Your task to perform on an android device: Open Google Chrome and click the shortcut for Amazon.com Image 0: 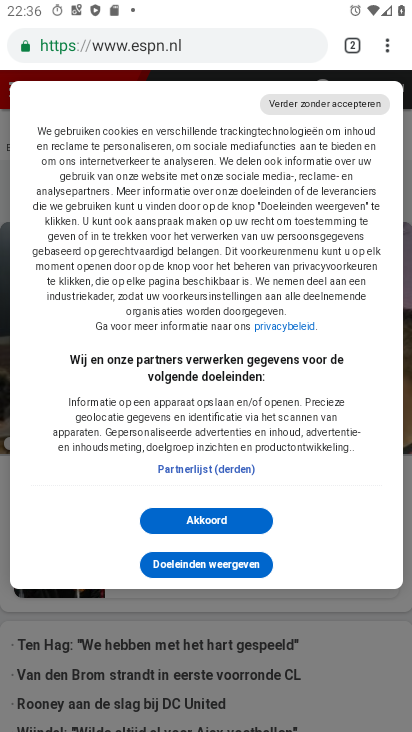
Step 0: click (346, 49)
Your task to perform on an android device: Open Google Chrome and click the shortcut for Amazon.com Image 1: 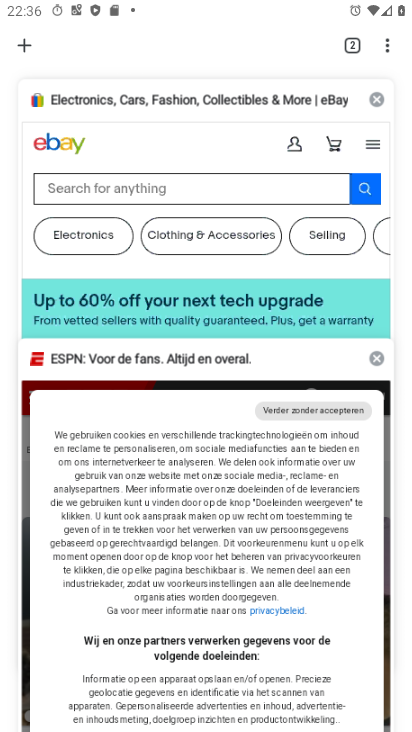
Step 1: click (26, 40)
Your task to perform on an android device: Open Google Chrome and click the shortcut for Amazon.com Image 2: 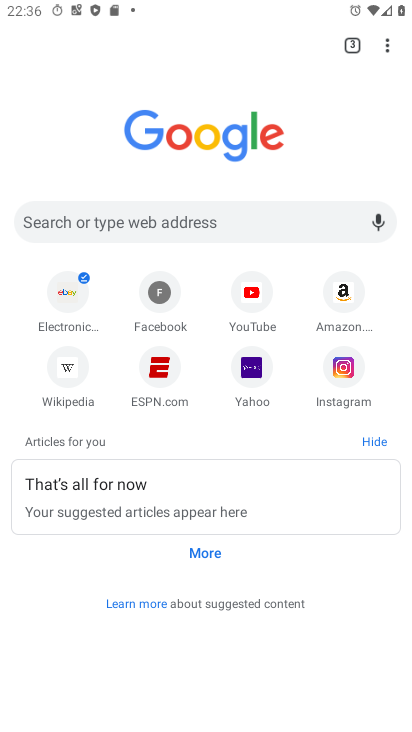
Step 2: click (334, 295)
Your task to perform on an android device: Open Google Chrome and click the shortcut for Amazon.com Image 3: 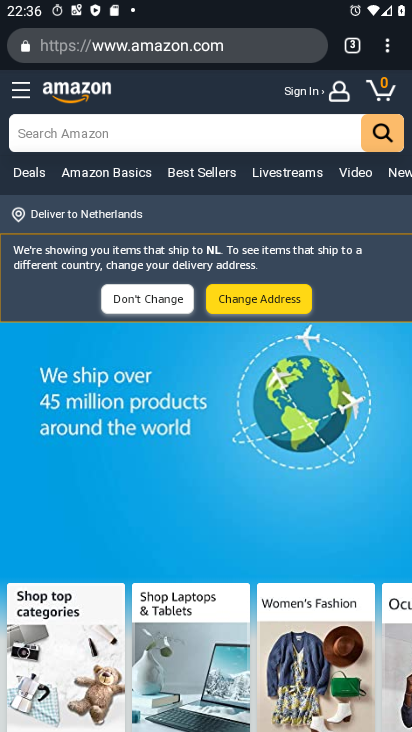
Step 3: task complete